Your task to perform on an android device: What's on my calendar tomorrow? Image 0: 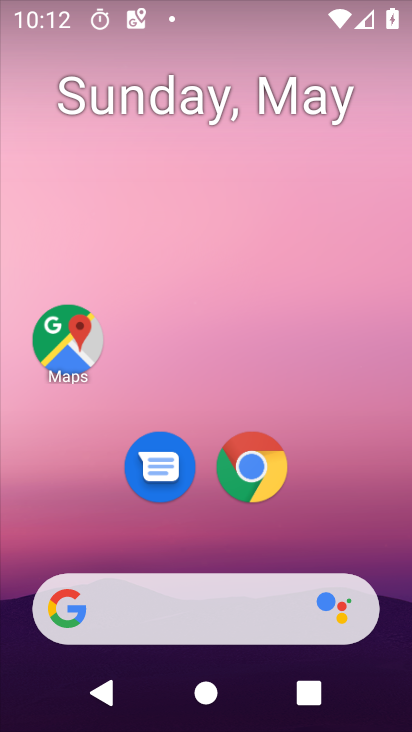
Step 0: drag from (202, 540) to (215, 207)
Your task to perform on an android device: What's on my calendar tomorrow? Image 1: 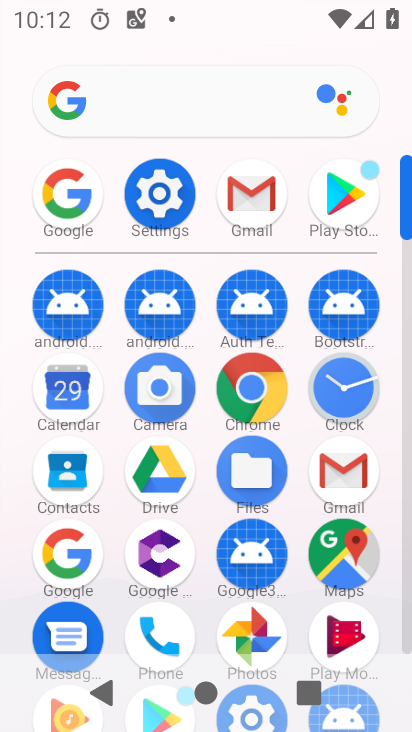
Step 1: click (88, 386)
Your task to perform on an android device: What's on my calendar tomorrow? Image 2: 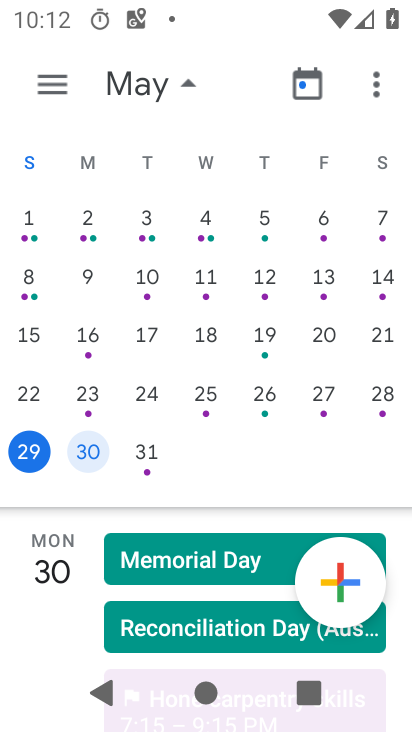
Step 2: click (80, 453)
Your task to perform on an android device: What's on my calendar tomorrow? Image 3: 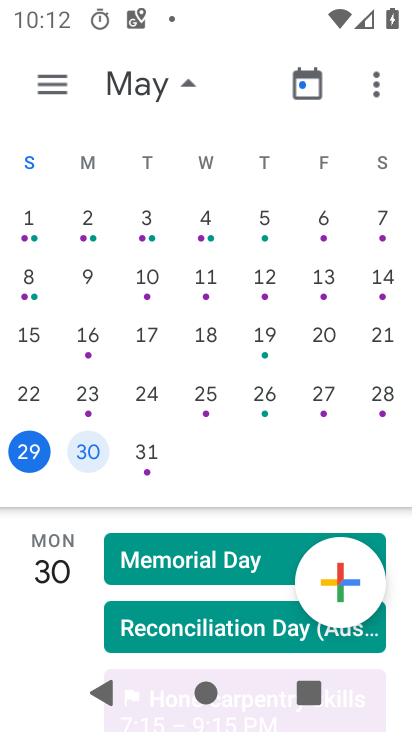
Step 3: task complete